Your task to perform on an android device: turn off sleep mode Image 0: 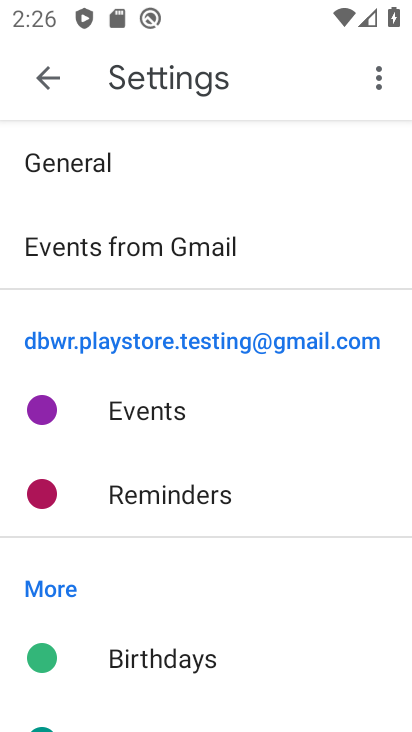
Step 0: press home button
Your task to perform on an android device: turn off sleep mode Image 1: 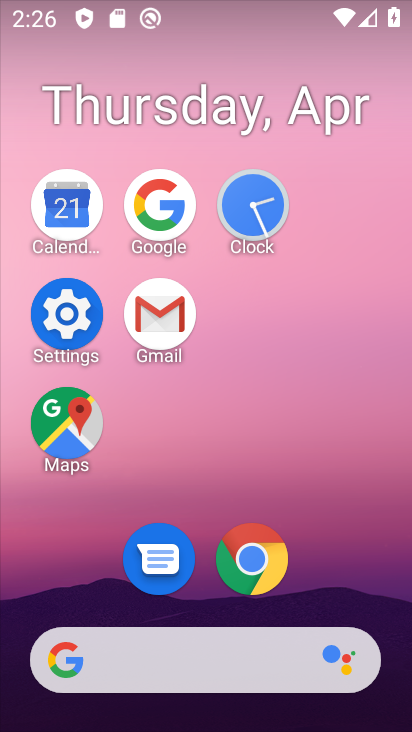
Step 1: click (78, 328)
Your task to perform on an android device: turn off sleep mode Image 2: 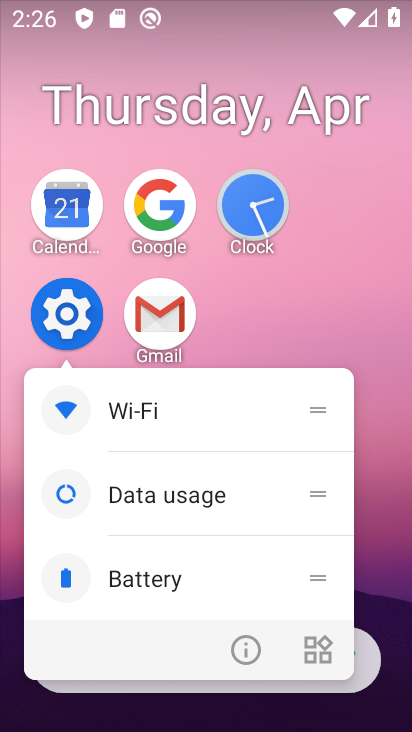
Step 2: click (91, 324)
Your task to perform on an android device: turn off sleep mode Image 3: 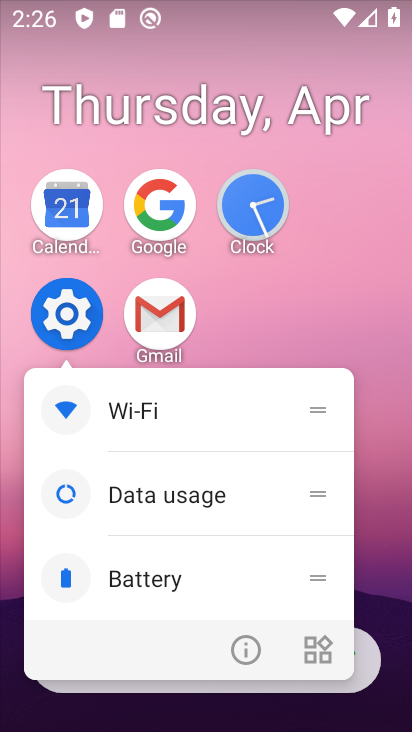
Step 3: click (84, 318)
Your task to perform on an android device: turn off sleep mode Image 4: 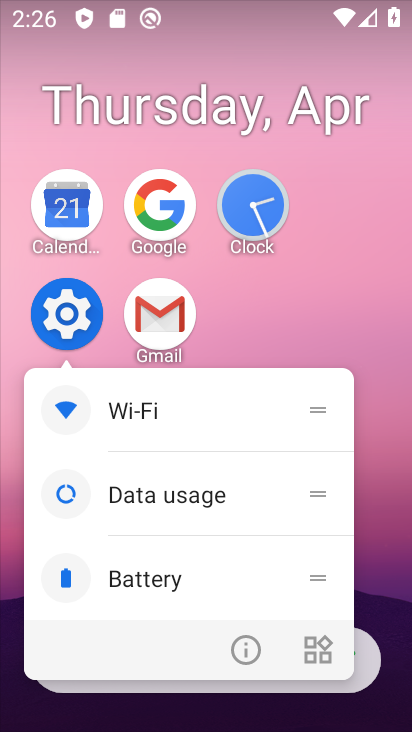
Step 4: click (84, 318)
Your task to perform on an android device: turn off sleep mode Image 5: 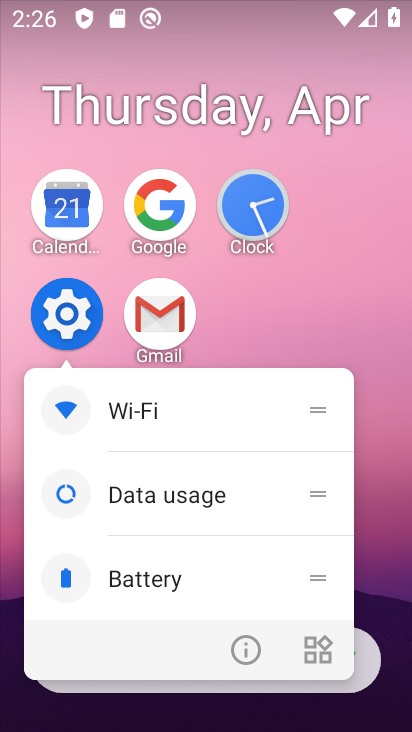
Step 5: click (299, 310)
Your task to perform on an android device: turn off sleep mode Image 6: 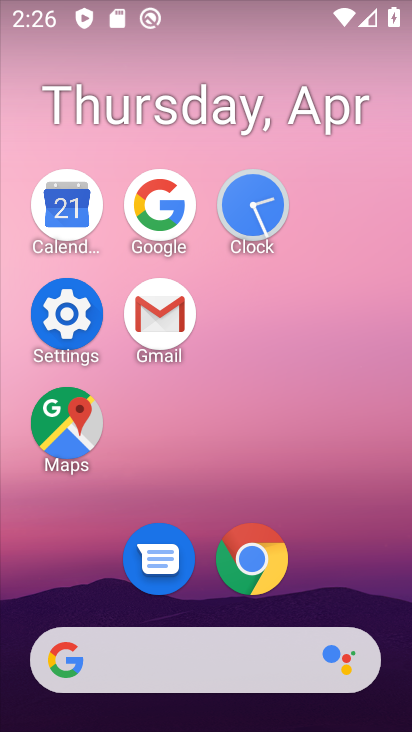
Step 6: drag from (200, 547) to (279, 220)
Your task to perform on an android device: turn off sleep mode Image 7: 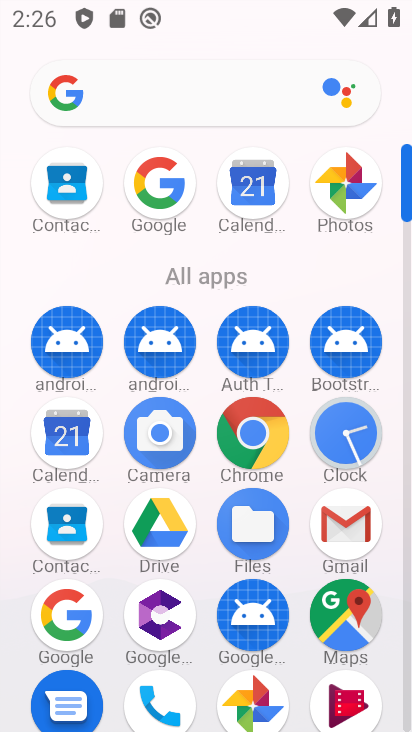
Step 7: drag from (214, 637) to (238, 289)
Your task to perform on an android device: turn off sleep mode Image 8: 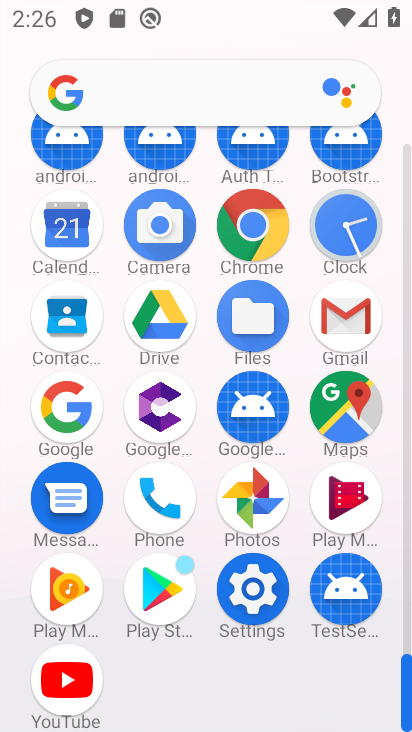
Step 8: click (261, 592)
Your task to perform on an android device: turn off sleep mode Image 9: 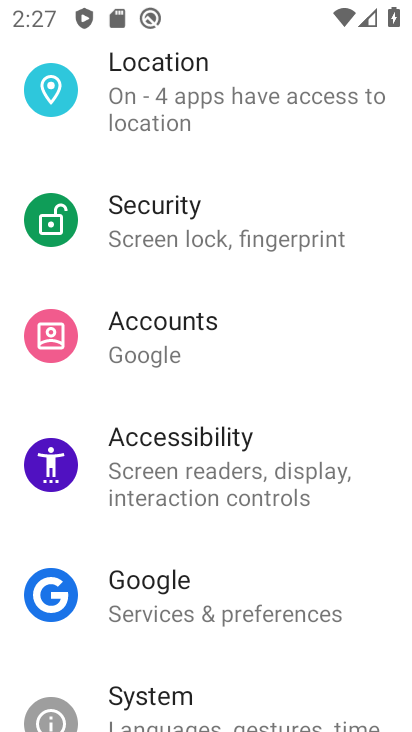
Step 9: drag from (302, 167) to (229, 666)
Your task to perform on an android device: turn off sleep mode Image 10: 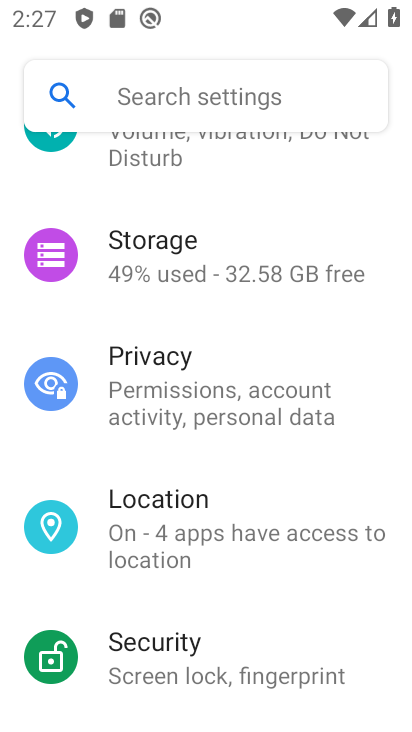
Step 10: drag from (248, 180) to (247, 463)
Your task to perform on an android device: turn off sleep mode Image 11: 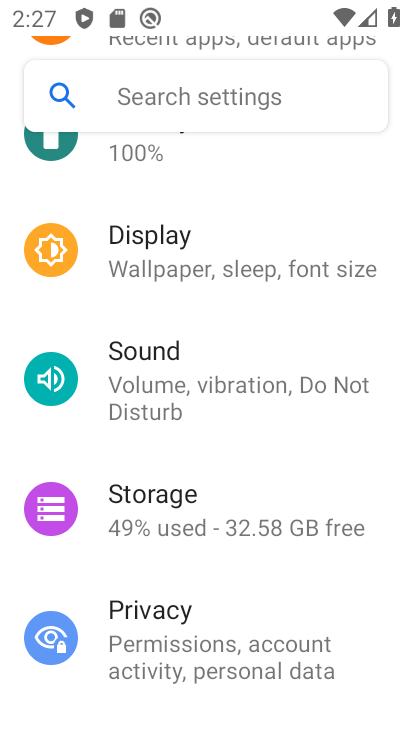
Step 11: click (301, 271)
Your task to perform on an android device: turn off sleep mode Image 12: 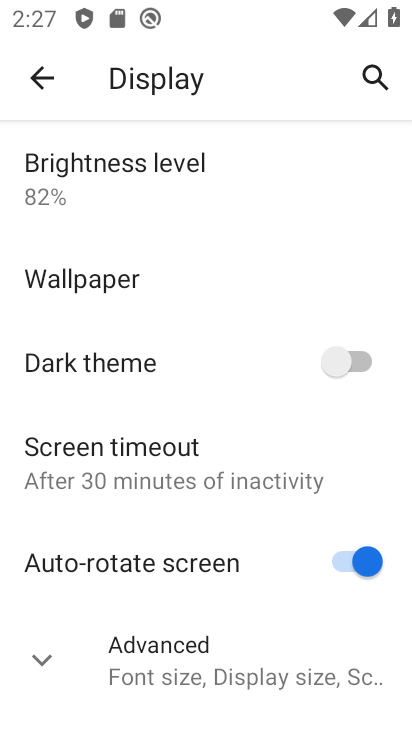
Step 12: click (187, 459)
Your task to perform on an android device: turn off sleep mode Image 13: 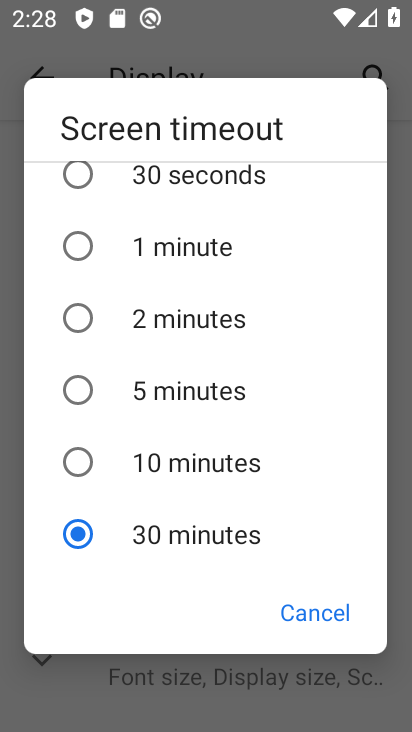
Step 13: task complete